Your task to perform on an android device: Open Google Maps and go to "Timeline" Image 0: 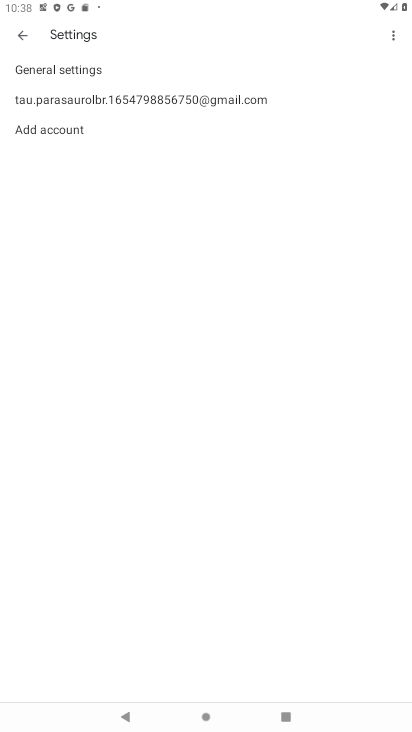
Step 0: press home button
Your task to perform on an android device: Open Google Maps and go to "Timeline" Image 1: 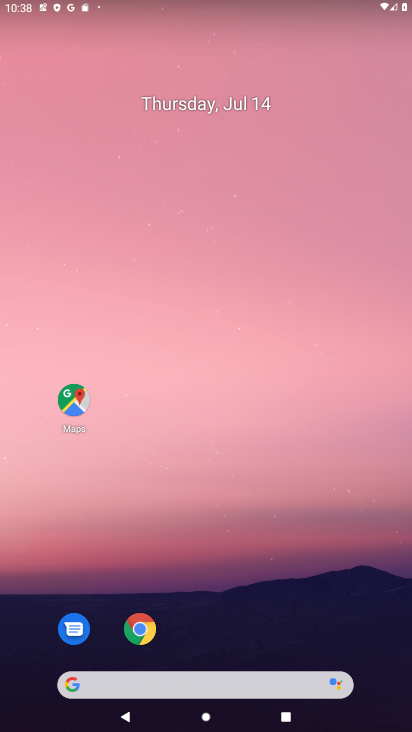
Step 1: click (70, 391)
Your task to perform on an android device: Open Google Maps and go to "Timeline" Image 2: 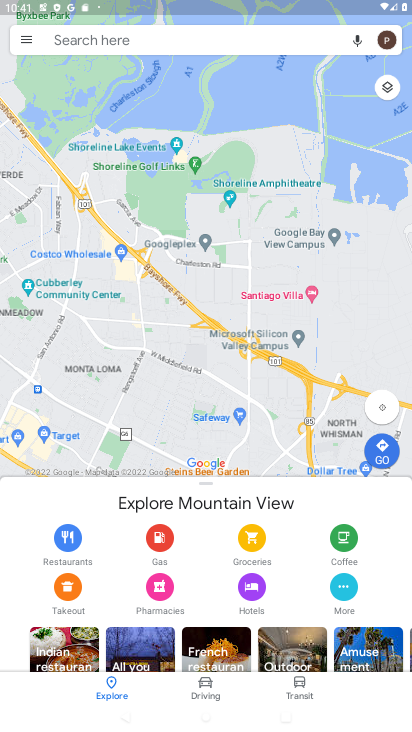
Step 2: task complete